Your task to perform on an android device: turn off notifications in google photos Image 0: 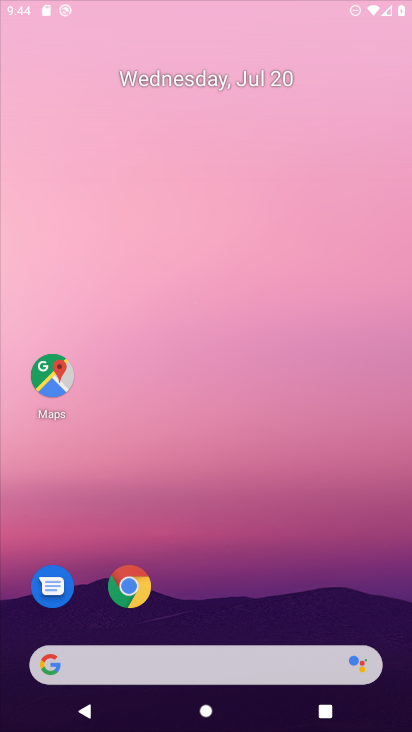
Step 0: press home button
Your task to perform on an android device: turn off notifications in google photos Image 1: 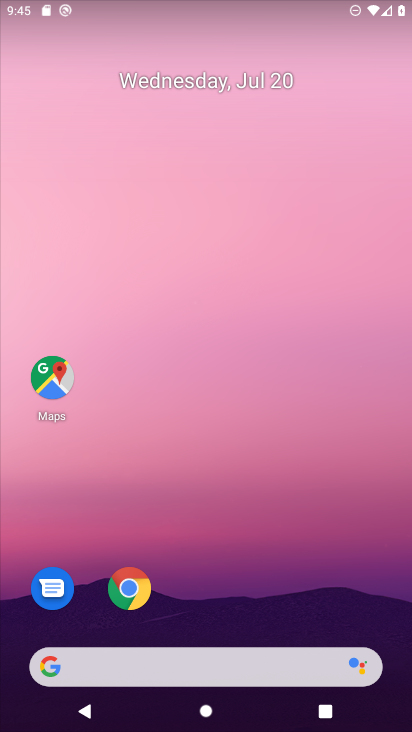
Step 1: press home button
Your task to perform on an android device: turn off notifications in google photos Image 2: 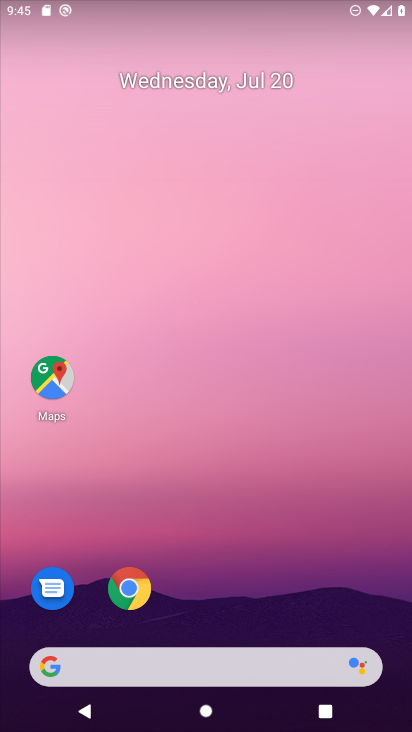
Step 2: drag from (316, 590) to (371, 127)
Your task to perform on an android device: turn off notifications in google photos Image 3: 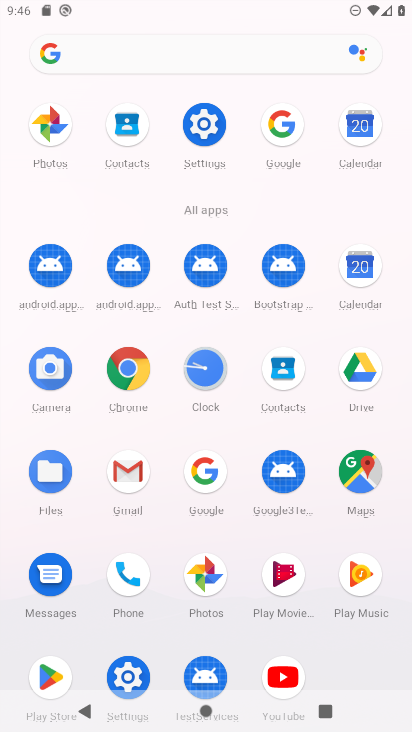
Step 3: click (206, 584)
Your task to perform on an android device: turn off notifications in google photos Image 4: 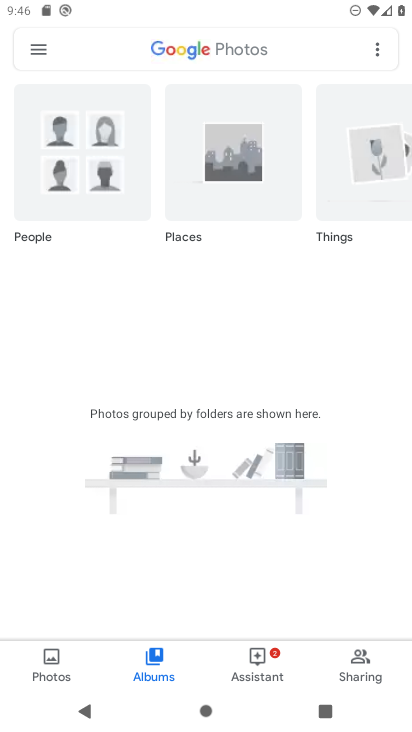
Step 4: click (37, 52)
Your task to perform on an android device: turn off notifications in google photos Image 5: 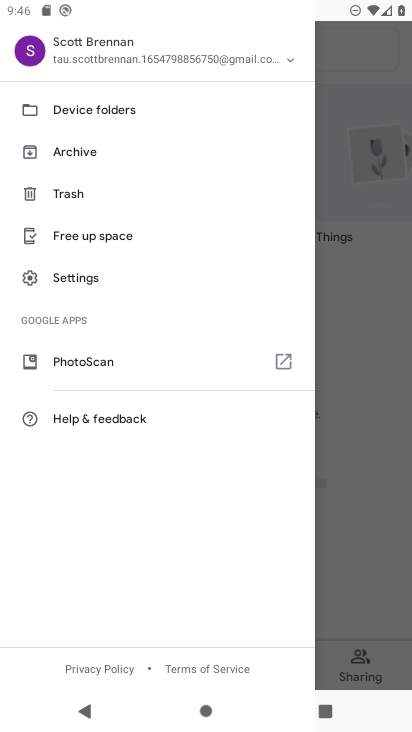
Step 5: click (57, 281)
Your task to perform on an android device: turn off notifications in google photos Image 6: 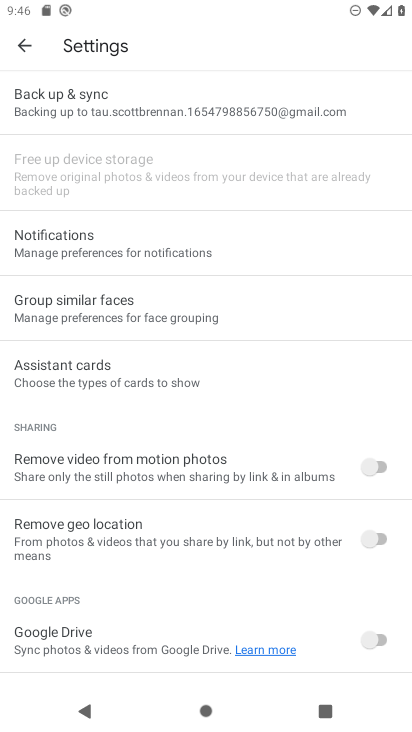
Step 6: click (63, 236)
Your task to perform on an android device: turn off notifications in google photos Image 7: 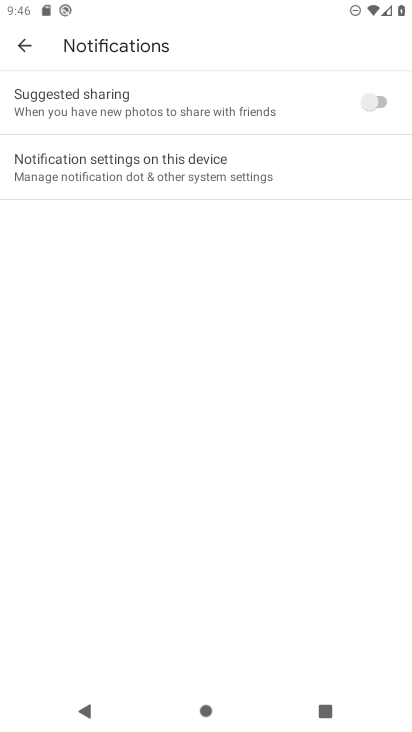
Step 7: click (77, 176)
Your task to perform on an android device: turn off notifications in google photos Image 8: 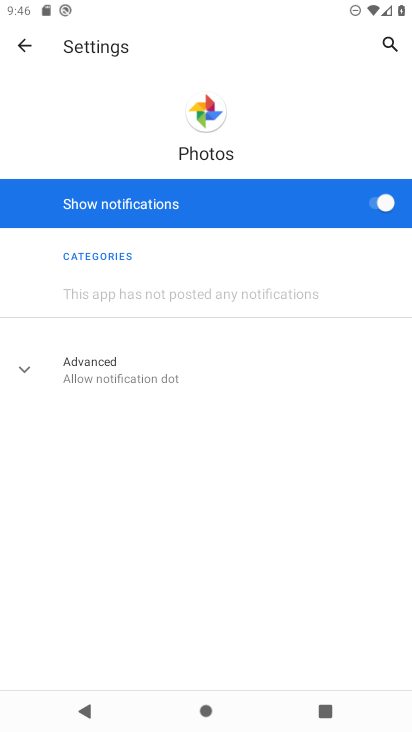
Step 8: click (380, 209)
Your task to perform on an android device: turn off notifications in google photos Image 9: 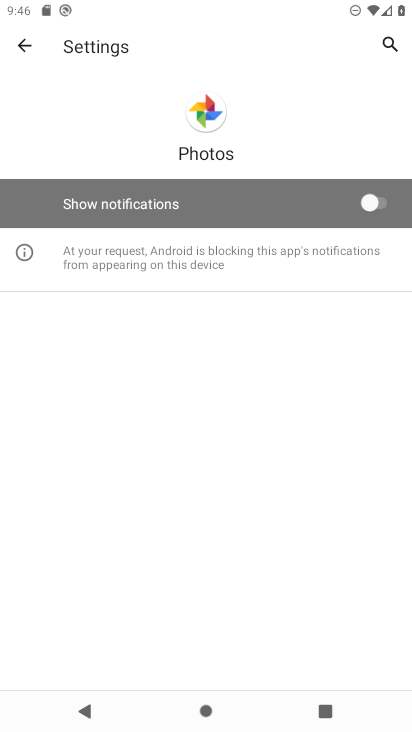
Step 9: task complete